Your task to perform on an android device: Open sound settings Image 0: 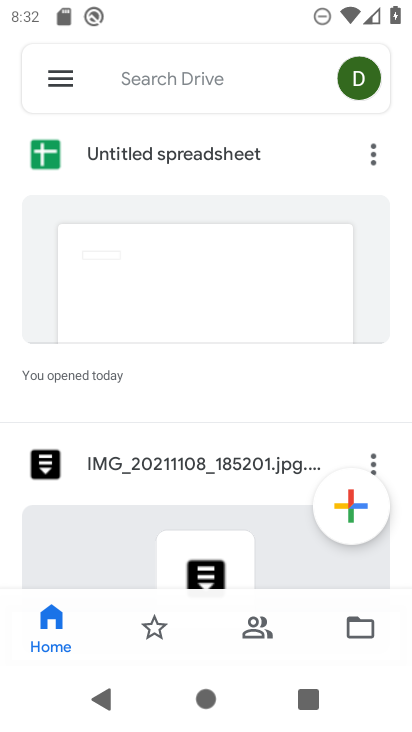
Step 0: press home button
Your task to perform on an android device: Open sound settings Image 1: 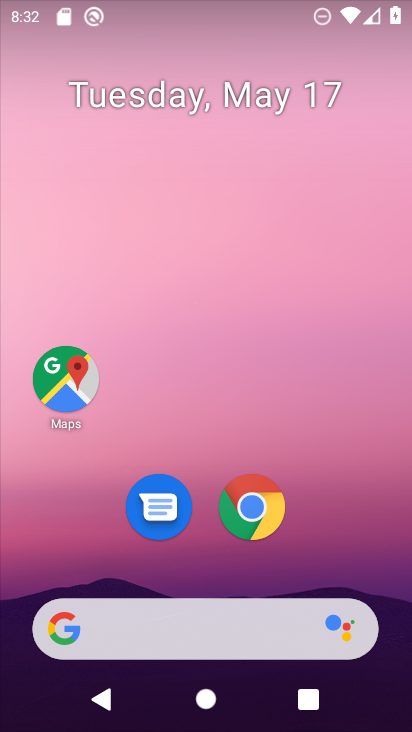
Step 1: drag from (354, 578) to (331, 9)
Your task to perform on an android device: Open sound settings Image 2: 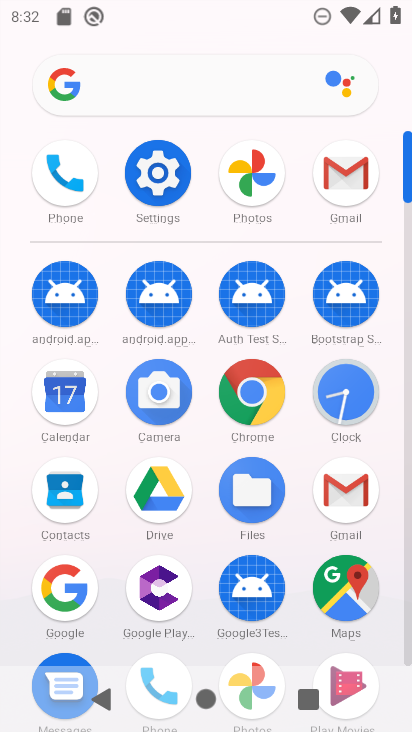
Step 2: click (154, 178)
Your task to perform on an android device: Open sound settings Image 3: 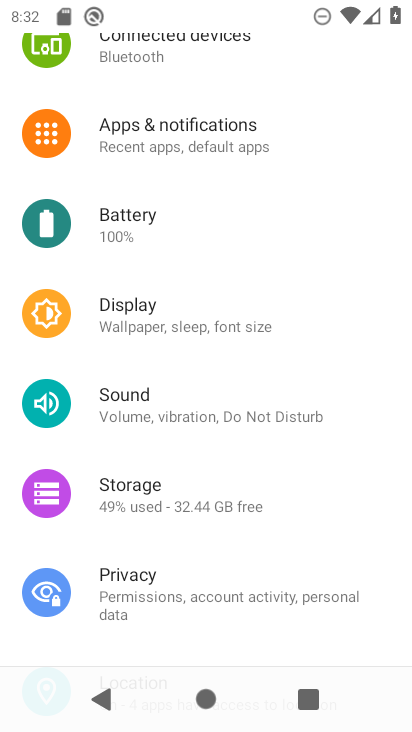
Step 3: click (117, 418)
Your task to perform on an android device: Open sound settings Image 4: 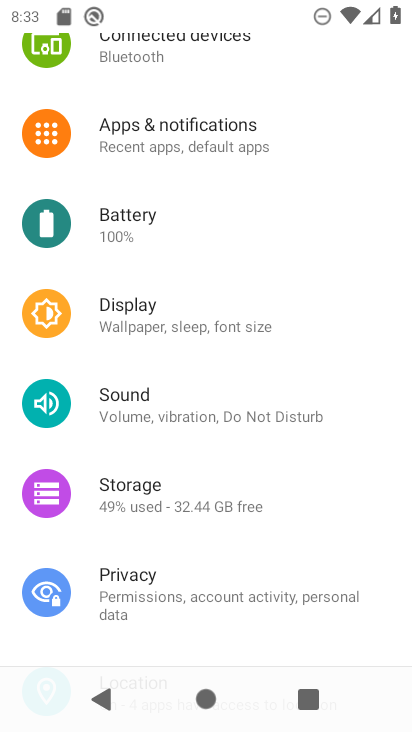
Step 4: click (177, 435)
Your task to perform on an android device: Open sound settings Image 5: 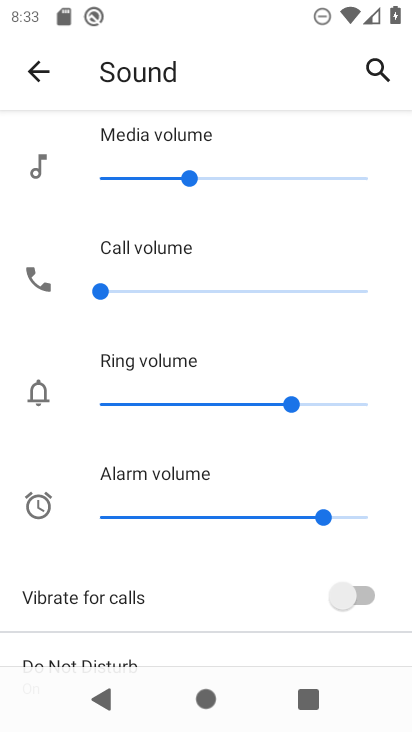
Step 5: task complete